Your task to perform on an android device: How do I get to the nearest McDonalds? Image 0: 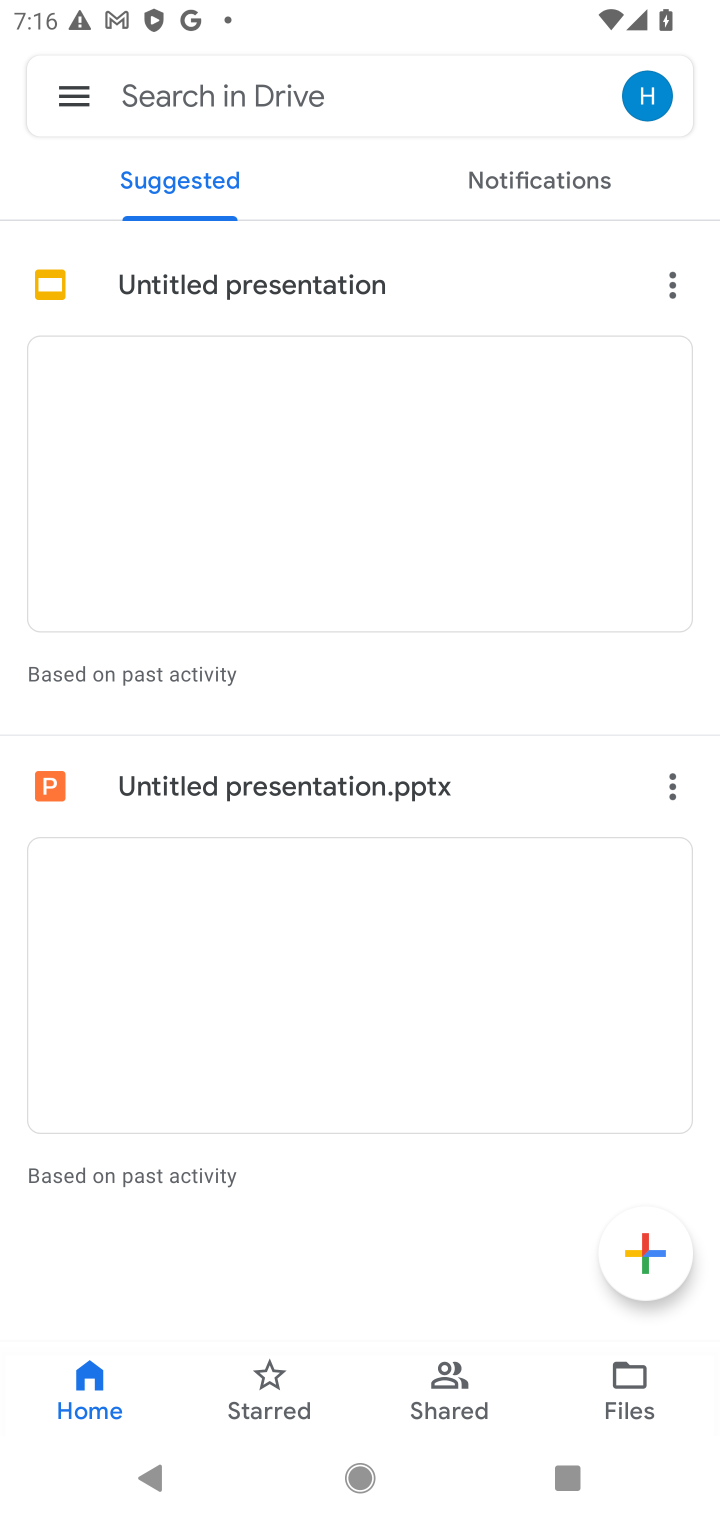
Step 0: press home button
Your task to perform on an android device: How do I get to the nearest McDonalds? Image 1: 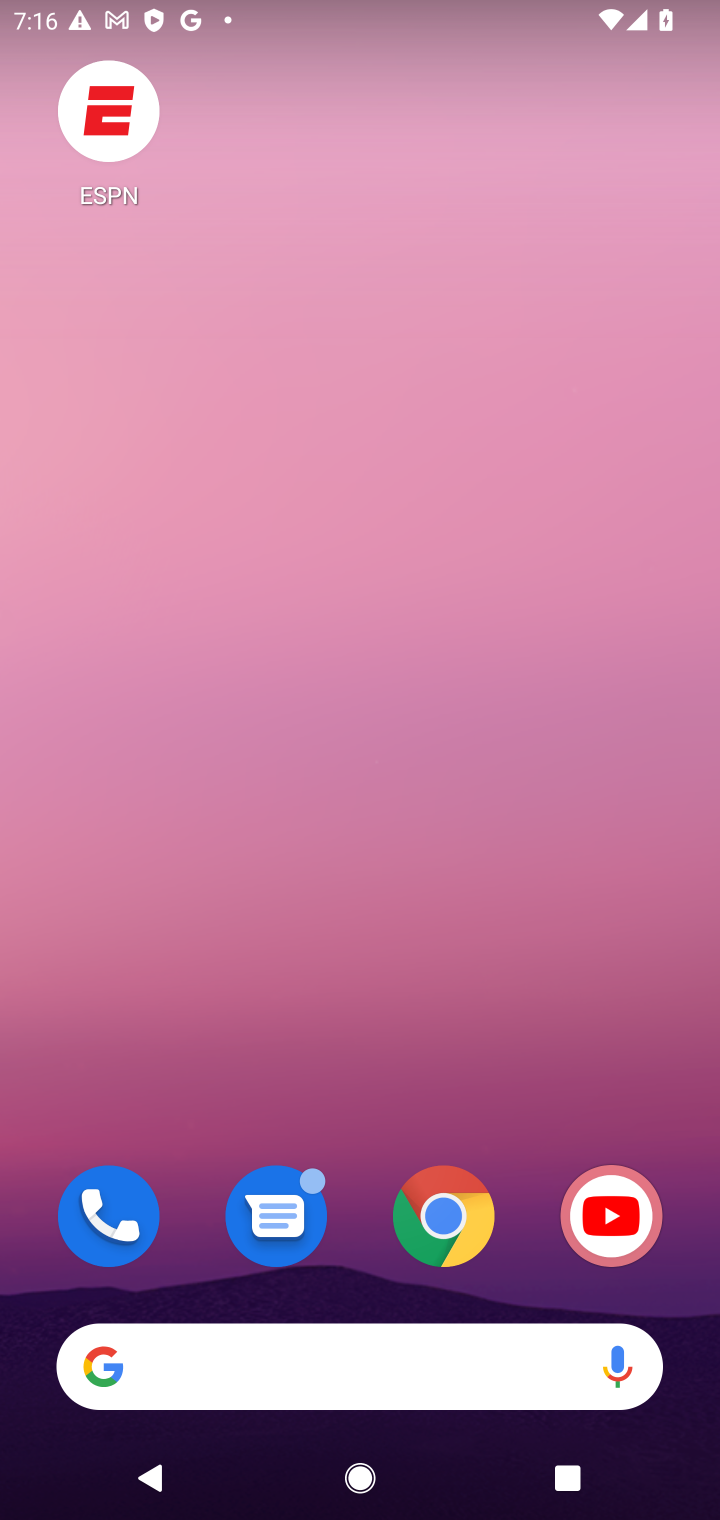
Step 1: drag from (409, 1359) to (366, 618)
Your task to perform on an android device: How do I get to the nearest McDonalds? Image 2: 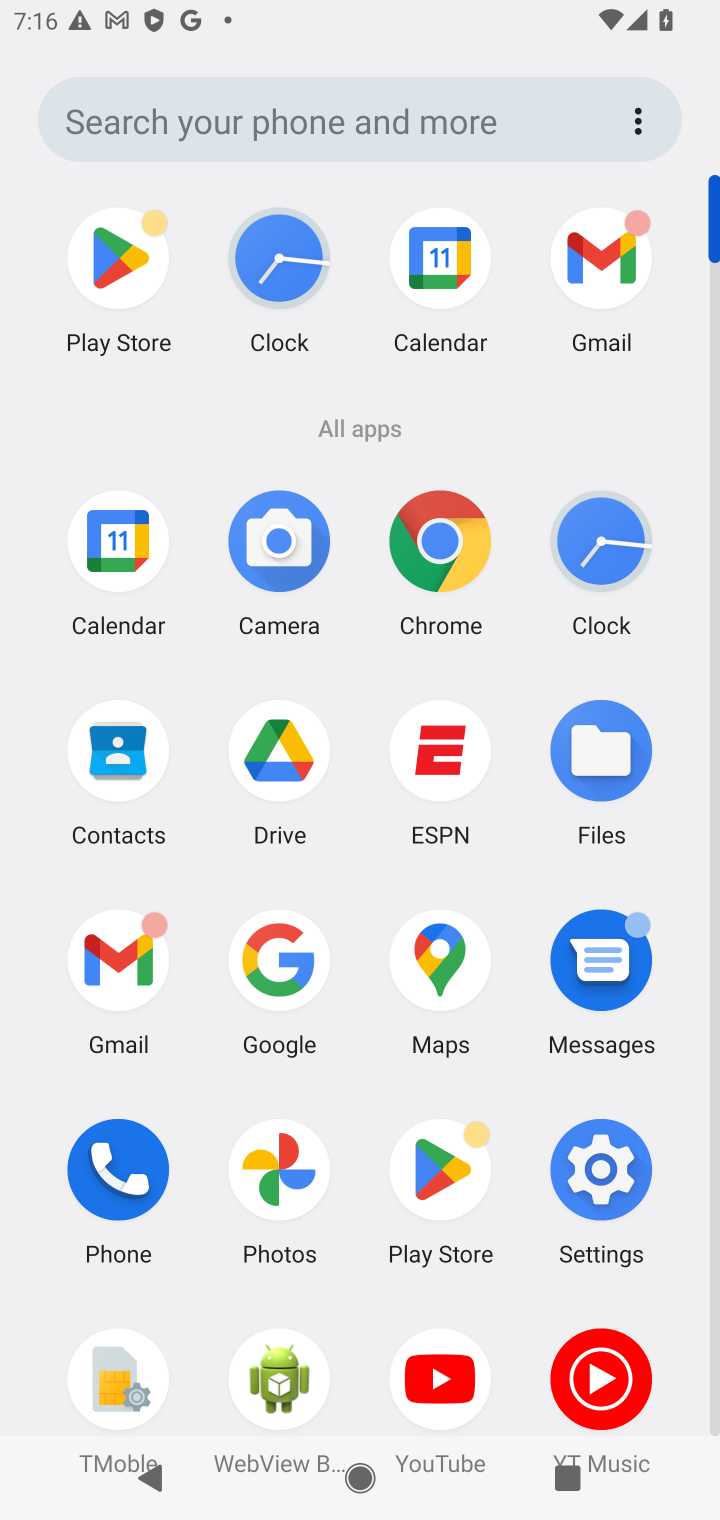
Step 2: click (427, 585)
Your task to perform on an android device: How do I get to the nearest McDonalds? Image 3: 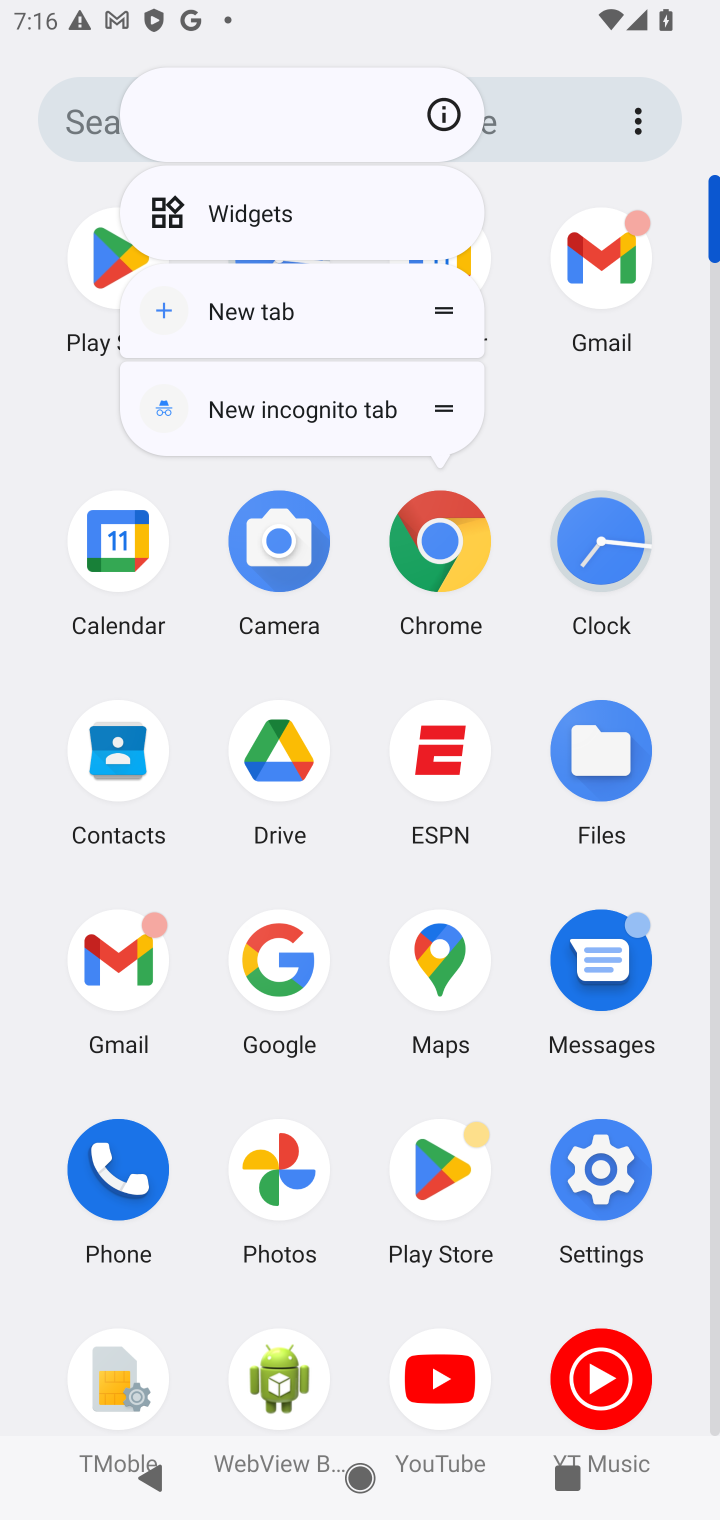
Step 3: click (427, 585)
Your task to perform on an android device: How do I get to the nearest McDonalds? Image 4: 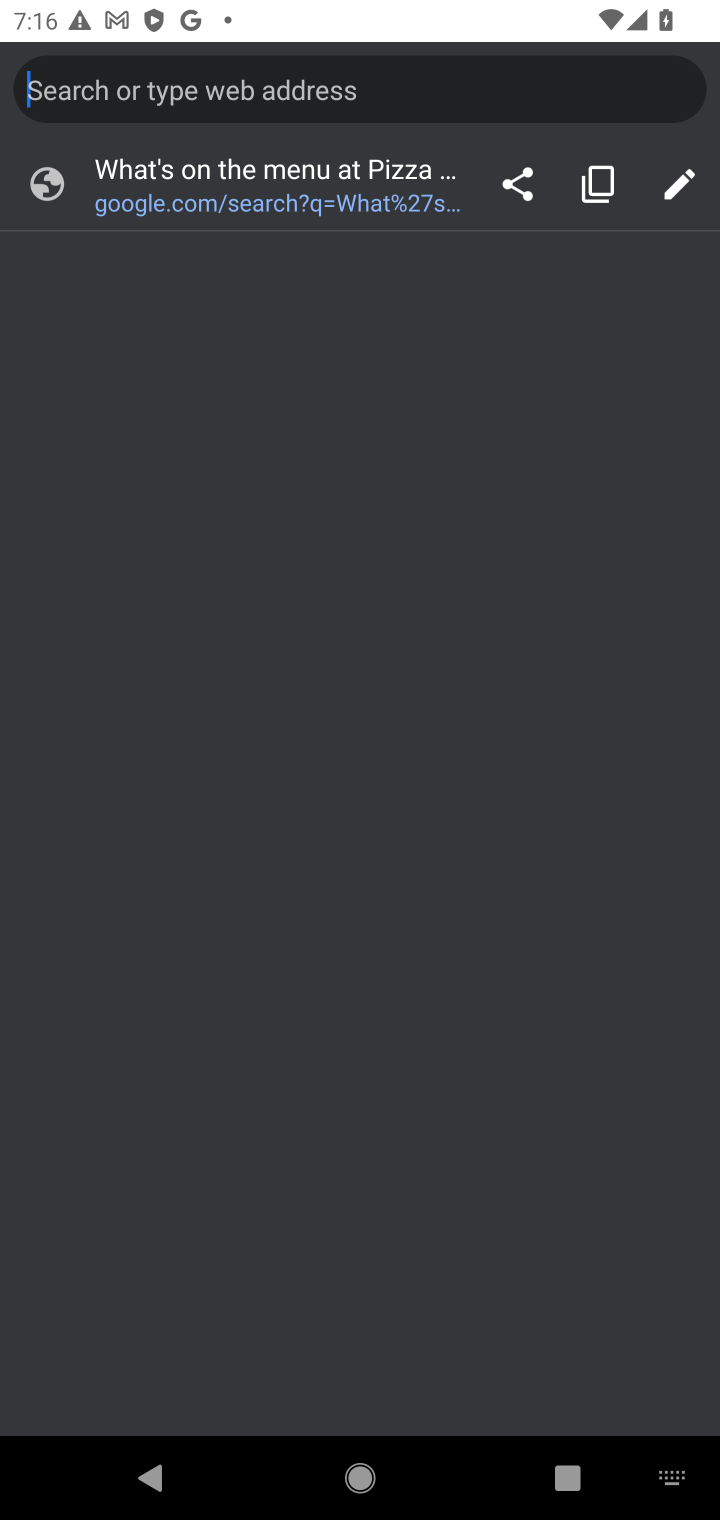
Step 4: type "How do I get to the nearest McDonalds?"
Your task to perform on an android device: How do I get to the nearest McDonalds? Image 5: 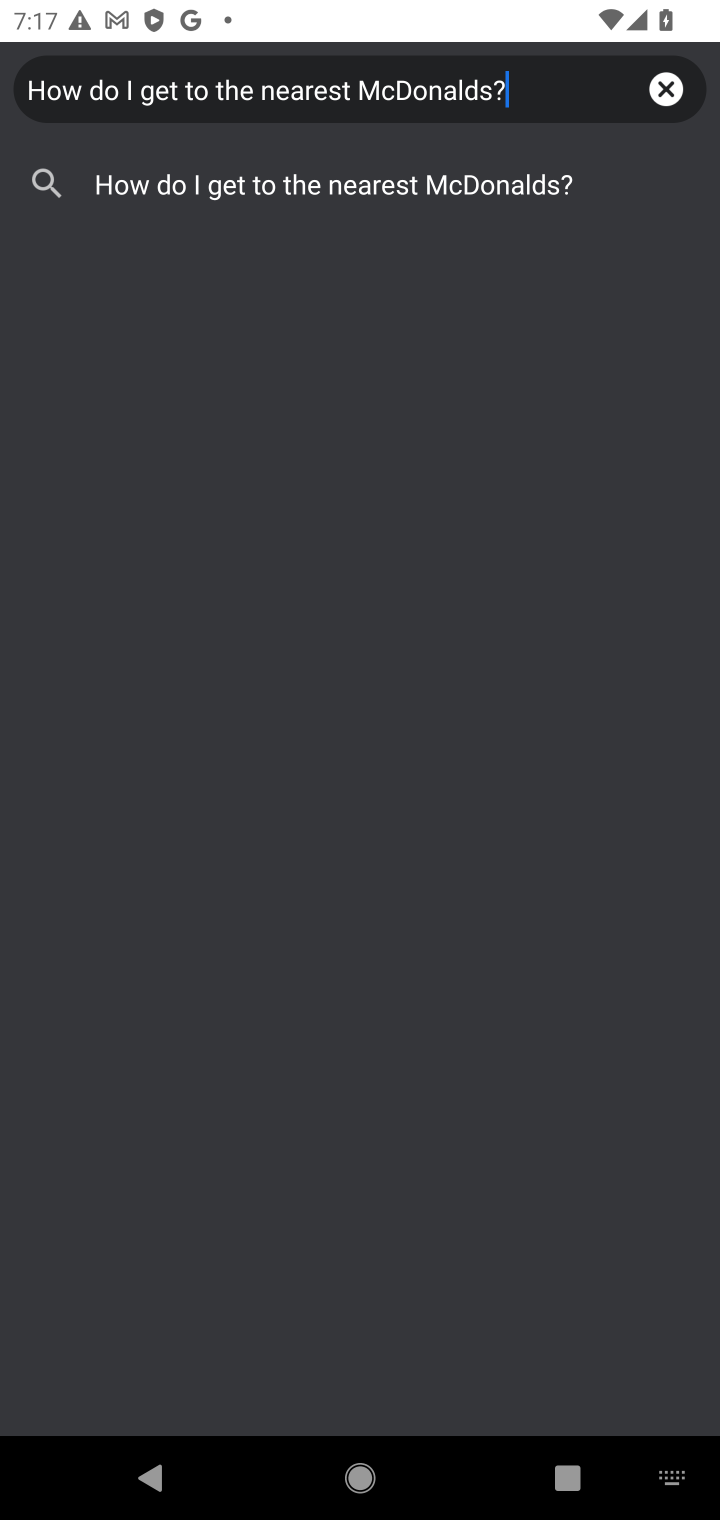
Step 5: press enter
Your task to perform on an android device: How do I get to the nearest McDonalds? Image 6: 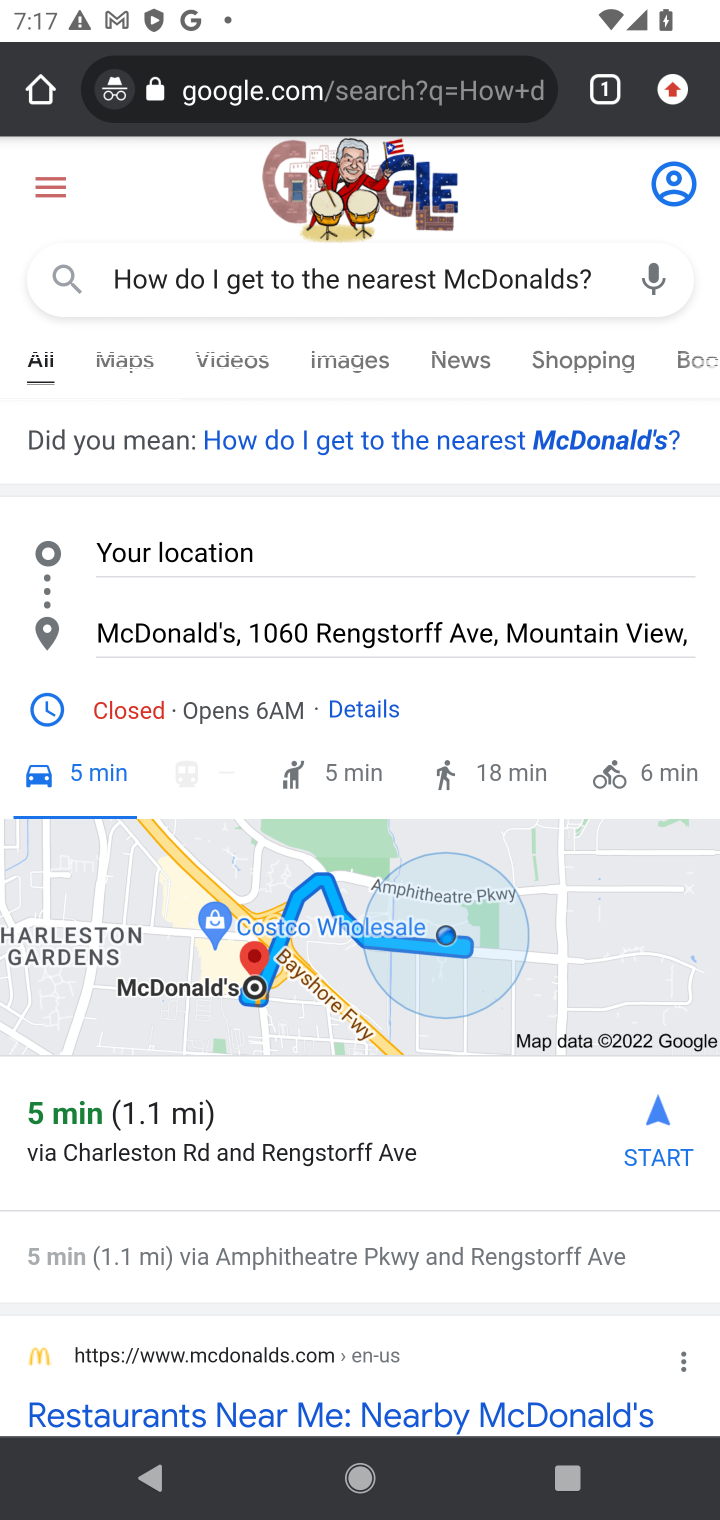
Step 6: task complete